Your task to perform on an android device: move a message to another label in the gmail app Image 0: 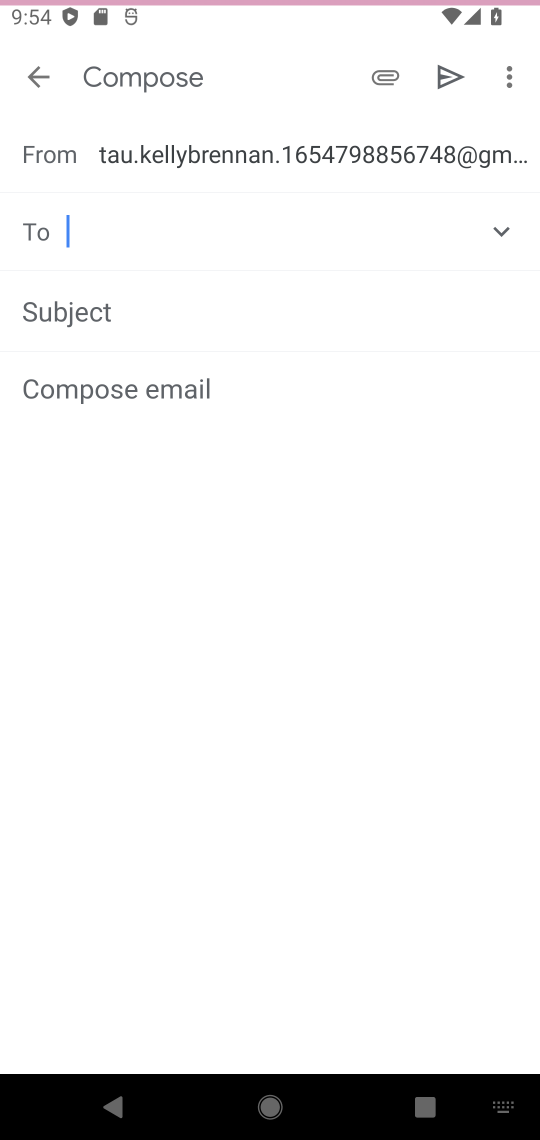
Step 0: press home button
Your task to perform on an android device: move a message to another label in the gmail app Image 1: 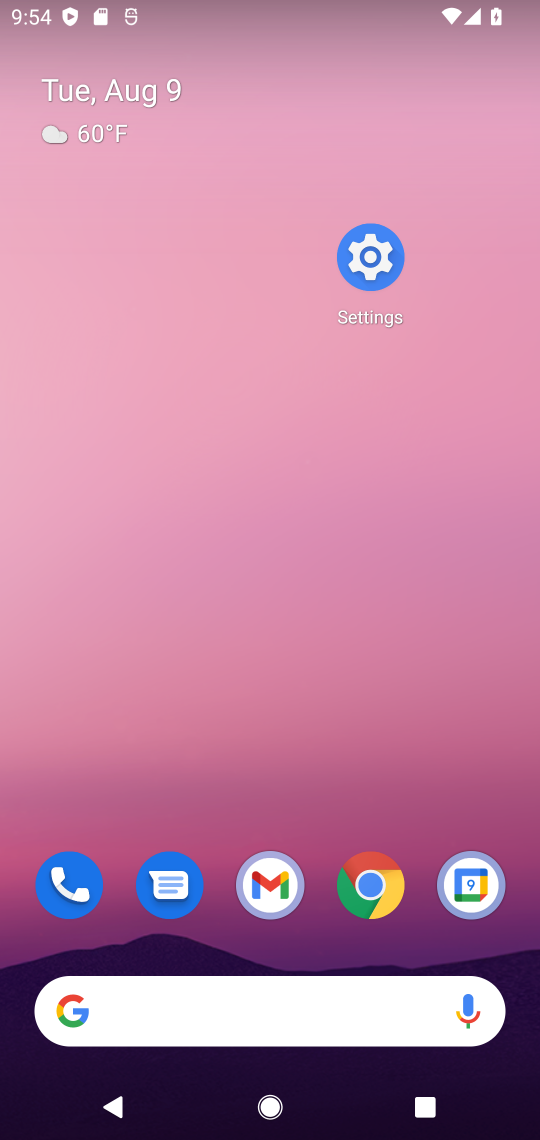
Step 1: drag from (309, 829) to (299, 66)
Your task to perform on an android device: move a message to another label in the gmail app Image 2: 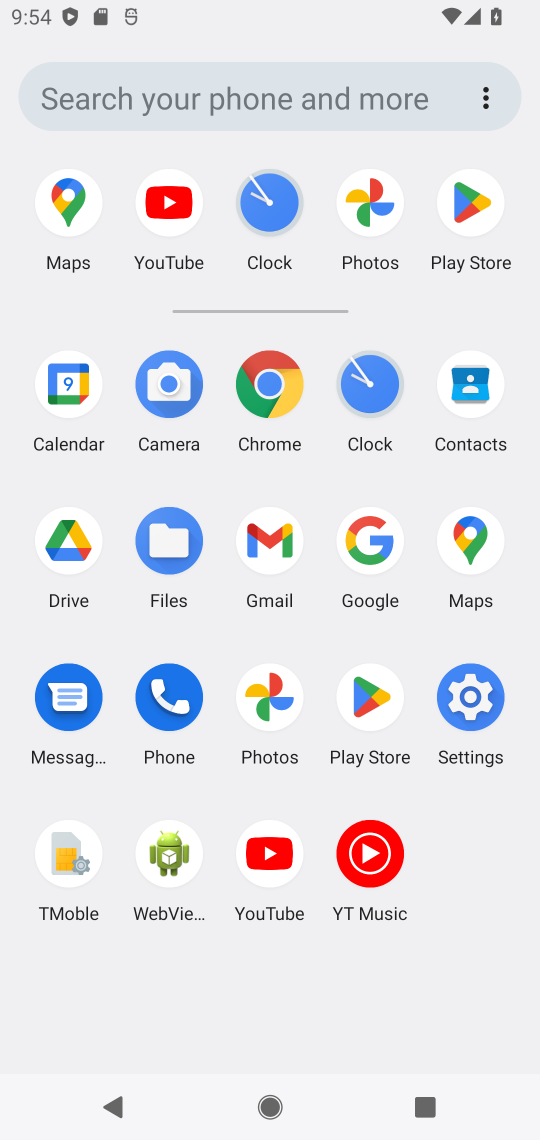
Step 2: click (268, 530)
Your task to perform on an android device: move a message to another label in the gmail app Image 3: 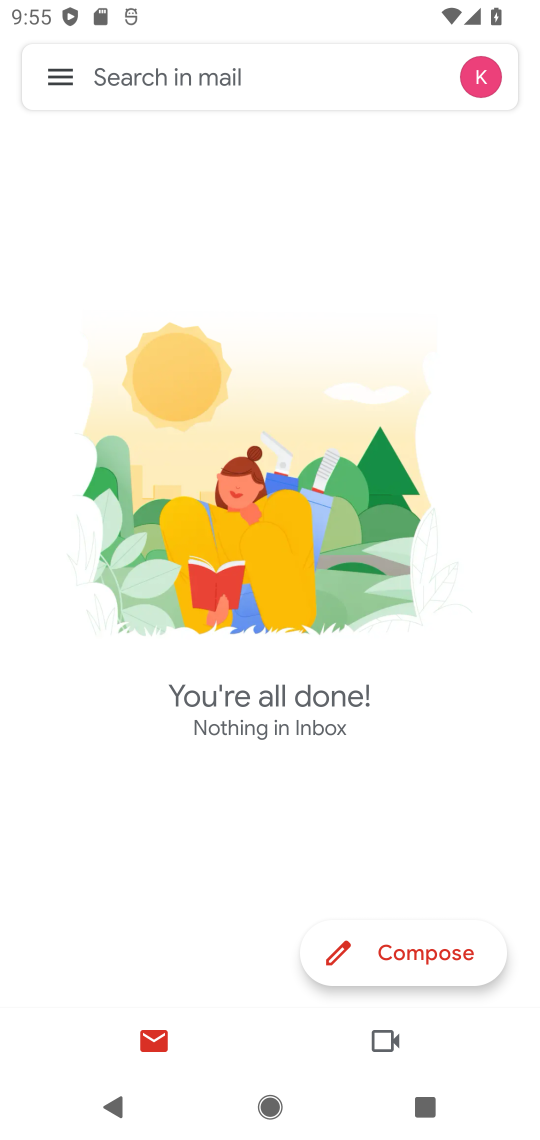
Step 3: click (57, 61)
Your task to perform on an android device: move a message to another label in the gmail app Image 4: 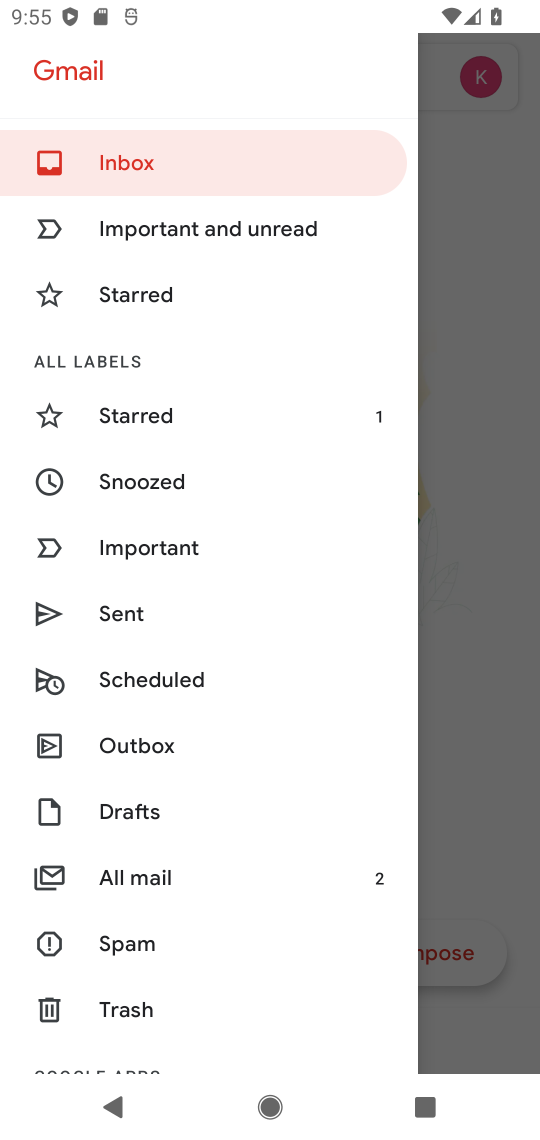
Step 4: drag from (187, 999) to (273, 188)
Your task to perform on an android device: move a message to another label in the gmail app Image 5: 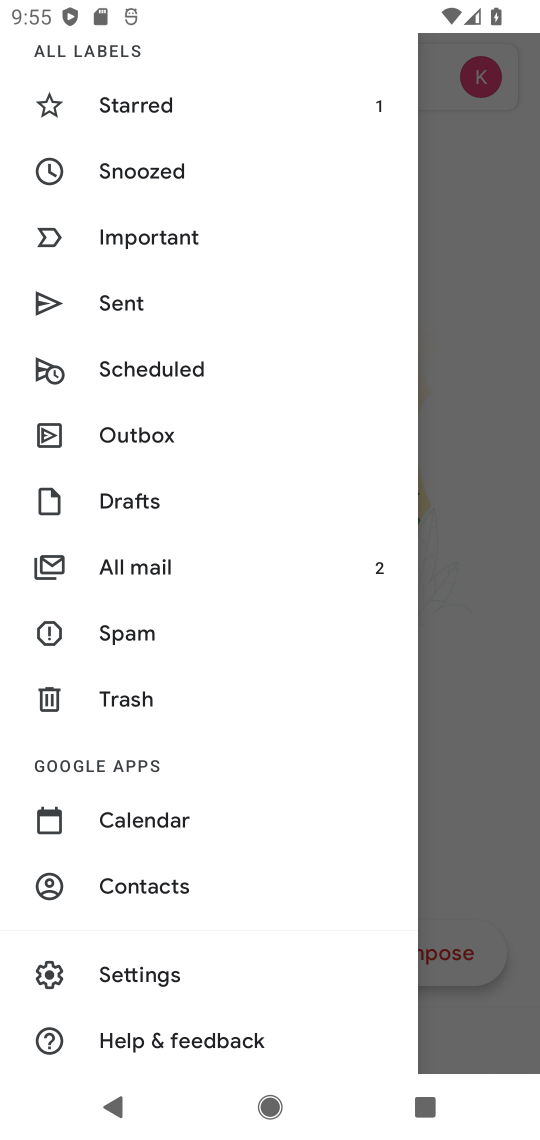
Step 5: drag from (216, 964) to (213, 390)
Your task to perform on an android device: move a message to another label in the gmail app Image 6: 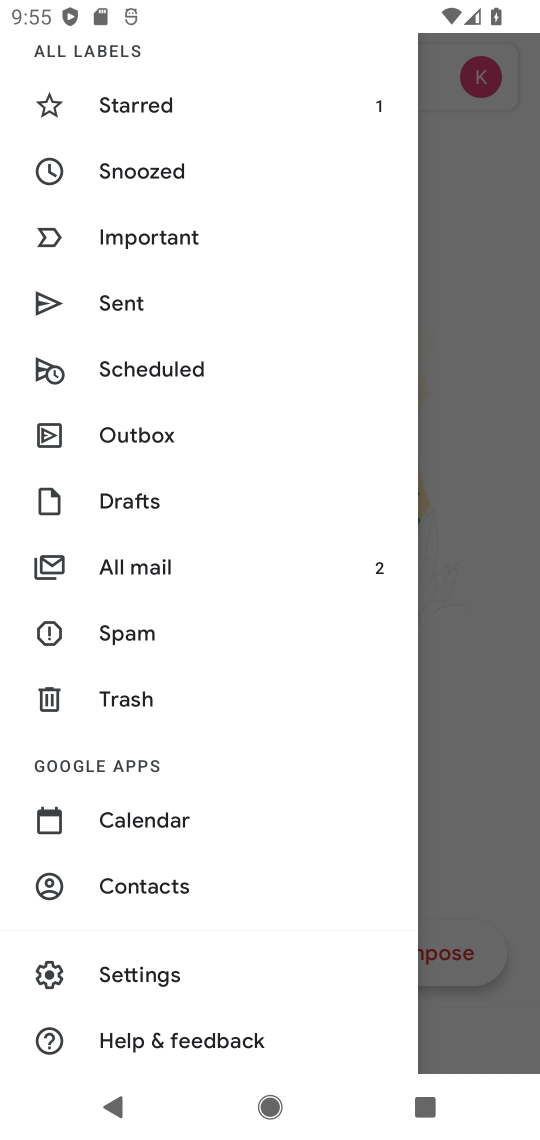
Step 6: click (143, 571)
Your task to perform on an android device: move a message to another label in the gmail app Image 7: 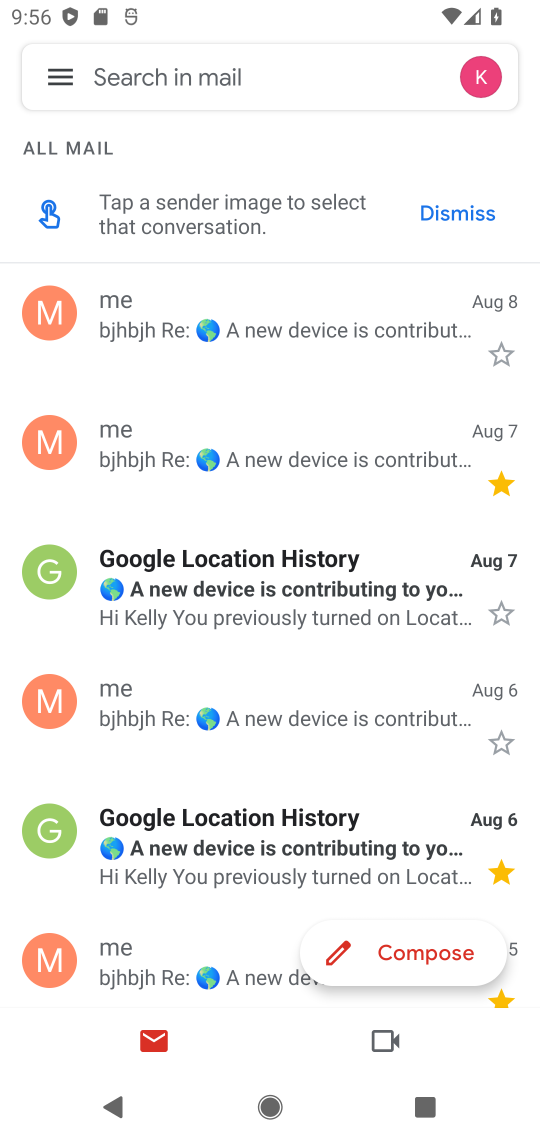
Step 7: click (52, 574)
Your task to perform on an android device: move a message to another label in the gmail app Image 8: 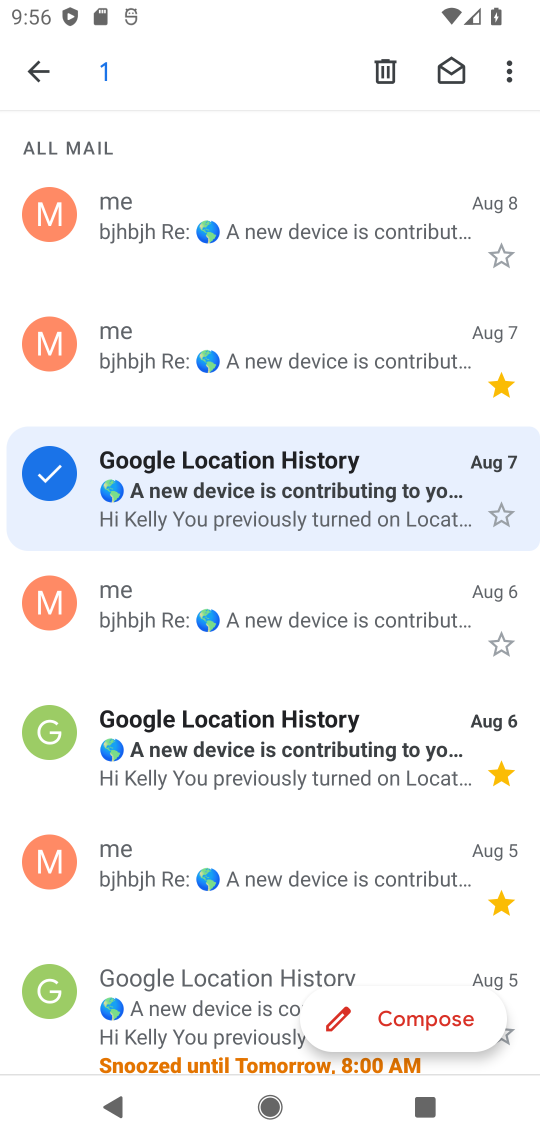
Step 8: click (512, 62)
Your task to perform on an android device: move a message to another label in the gmail app Image 9: 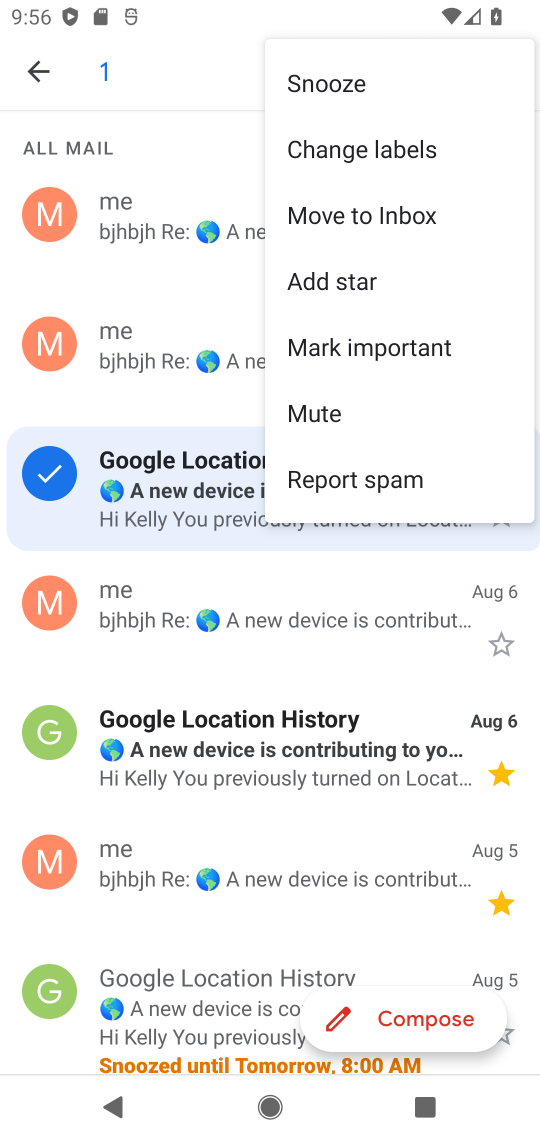
Step 9: click (382, 208)
Your task to perform on an android device: move a message to another label in the gmail app Image 10: 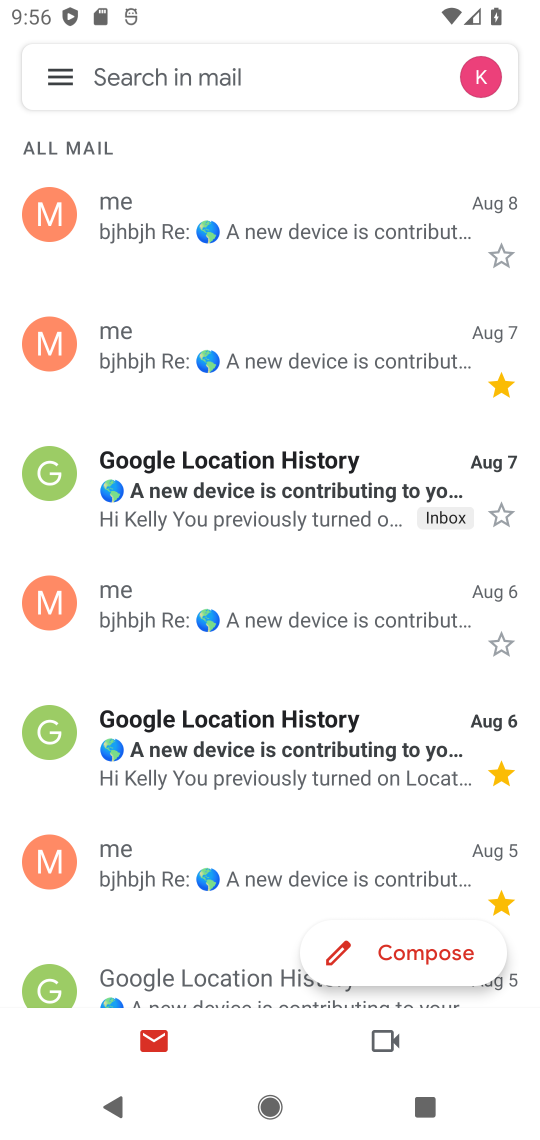
Step 10: task complete